Your task to perform on an android device: change notification settings in the gmail app Image 0: 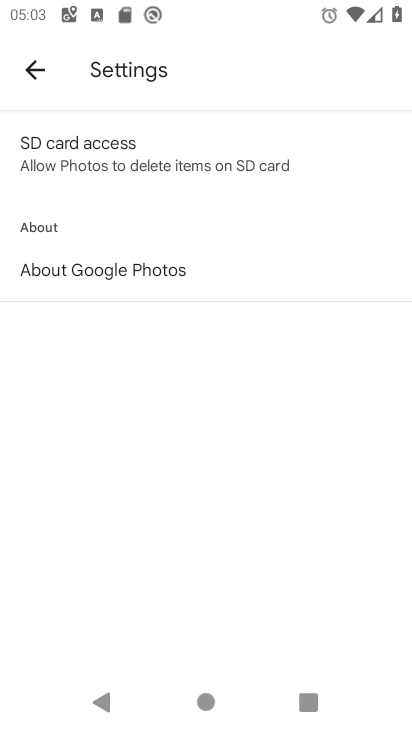
Step 0: press home button
Your task to perform on an android device: change notification settings in the gmail app Image 1: 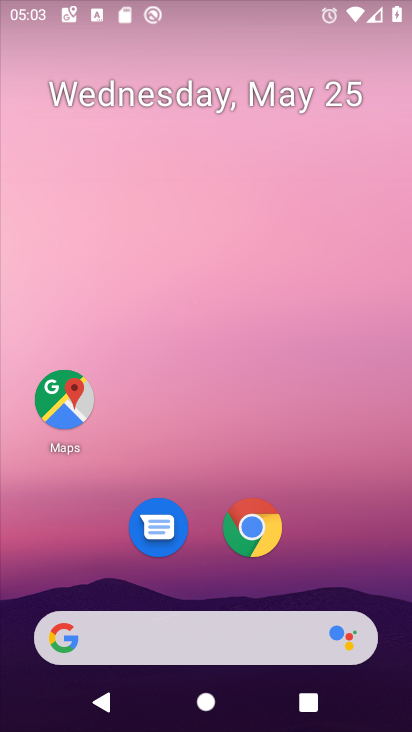
Step 1: drag from (199, 684) to (306, 9)
Your task to perform on an android device: change notification settings in the gmail app Image 2: 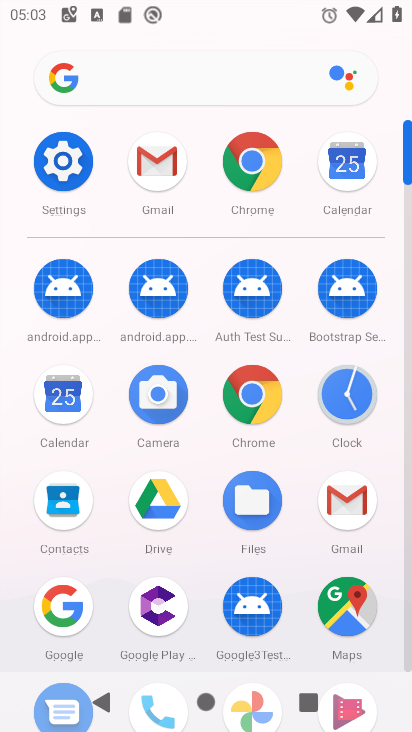
Step 2: click (336, 500)
Your task to perform on an android device: change notification settings in the gmail app Image 3: 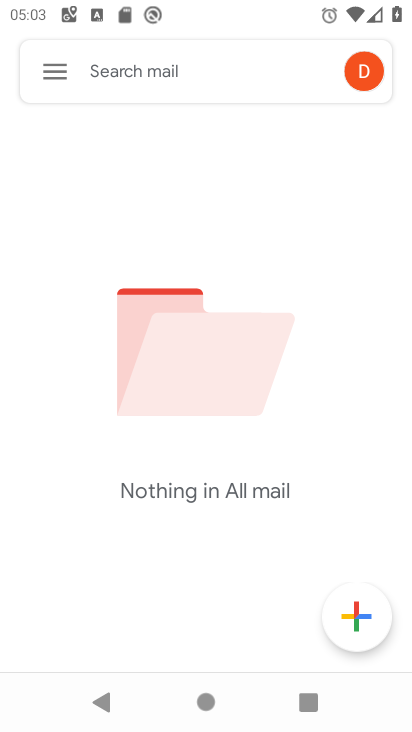
Step 3: click (62, 60)
Your task to perform on an android device: change notification settings in the gmail app Image 4: 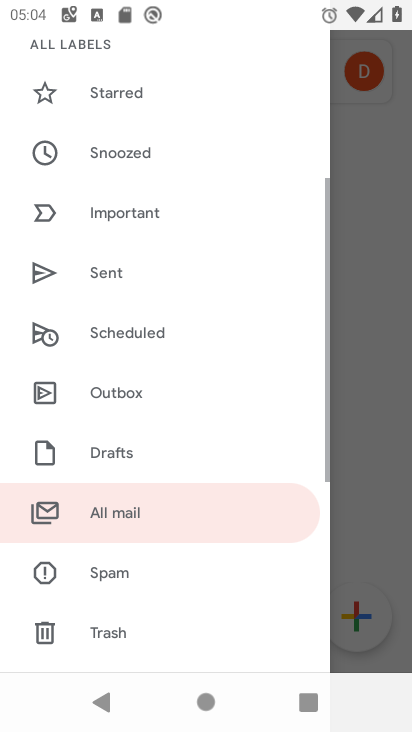
Step 4: drag from (180, 546) to (184, 0)
Your task to perform on an android device: change notification settings in the gmail app Image 5: 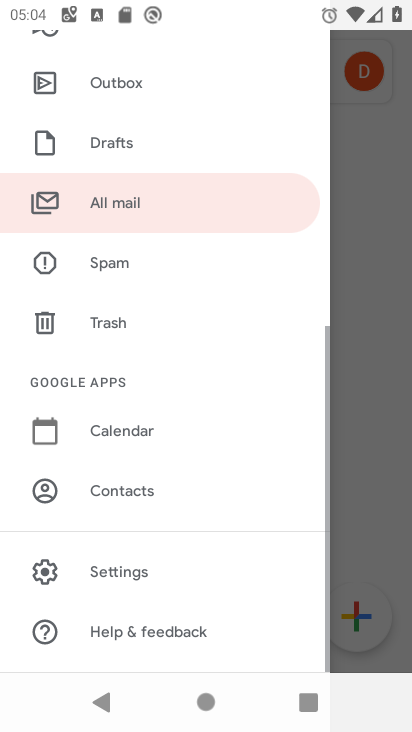
Step 5: click (102, 572)
Your task to perform on an android device: change notification settings in the gmail app Image 6: 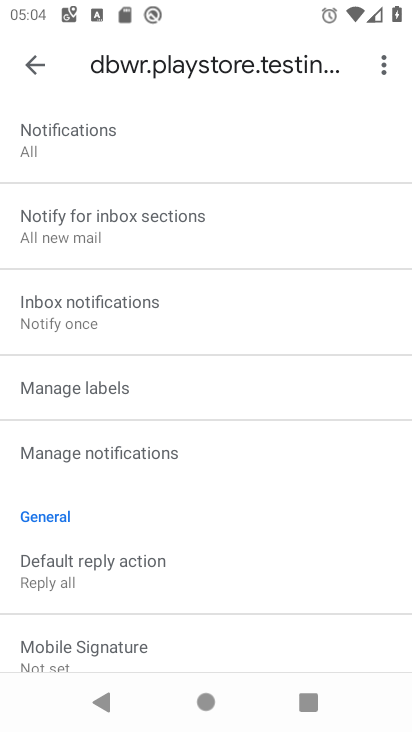
Step 6: click (131, 449)
Your task to perform on an android device: change notification settings in the gmail app Image 7: 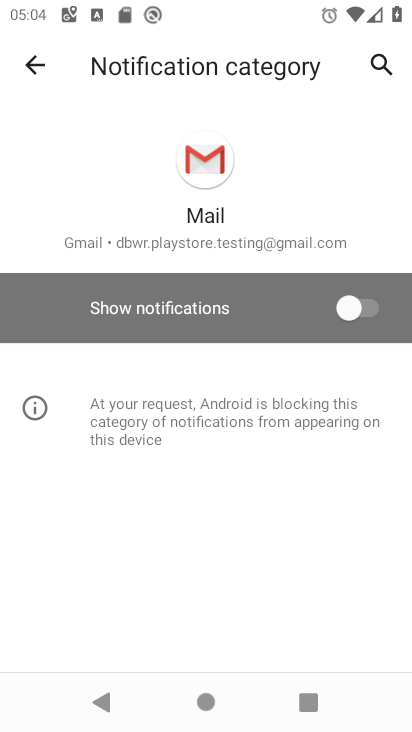
Step 7: task complete